Your task to perform on an android device: change the upload size in google photos Image 0: 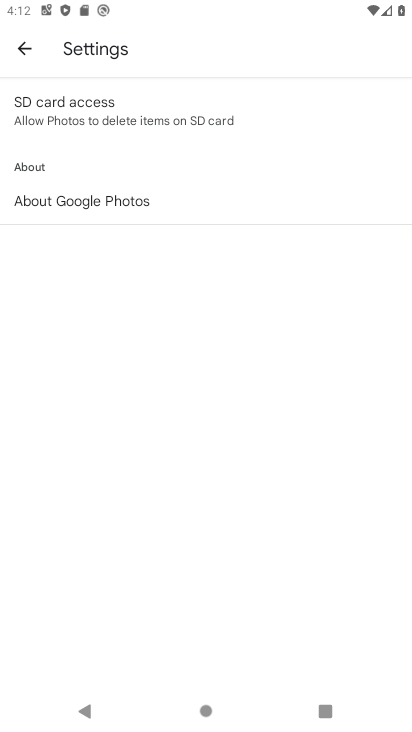
Step 0: press home button
Your task to perform on an android device: change the upload size in google photos Image 1: 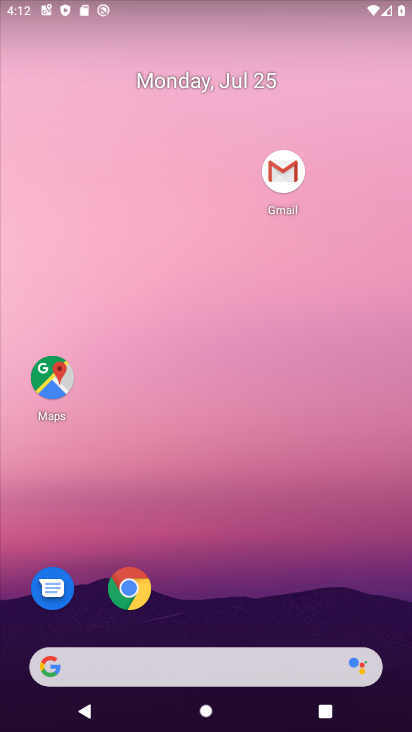
Step 1: drag from (245, 539) to (269, 154)
Your task to perform on an android device: change the upload size in google photos Image 2: 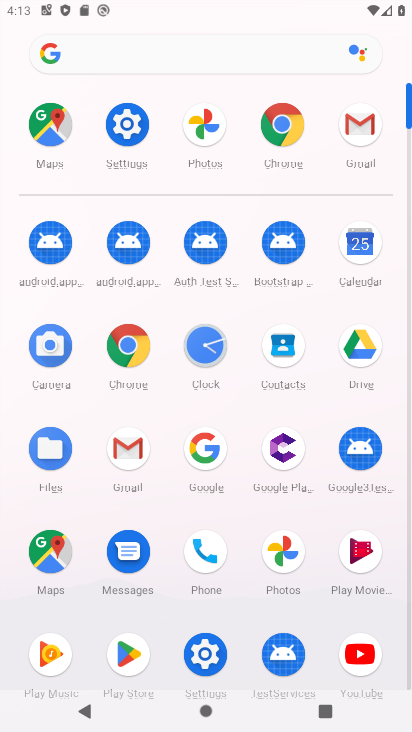
Step 2: click (223, 118)
Your task to perform on an android device: change the upload size in google photos Image 3: 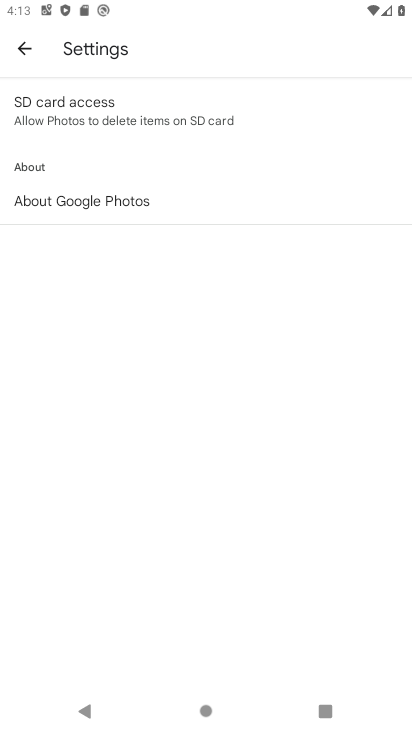
Step 3: click (29, 53)
Your task to perform on an android device: change the upload size in google photos Image 4: 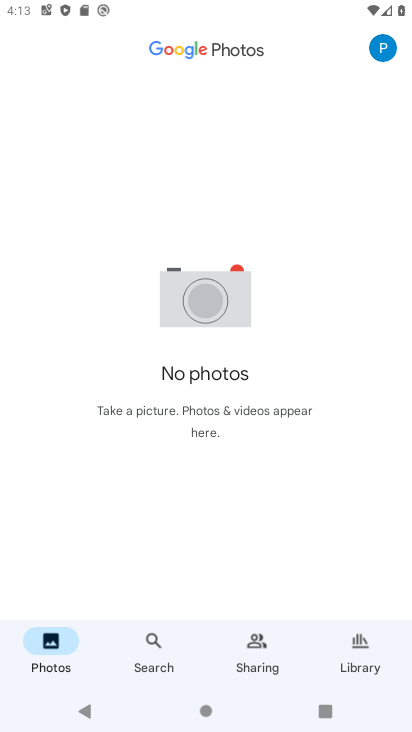
Step 4: click (392, 43)
Your task to perform on an android device: change the upload size in google photos Image 5: 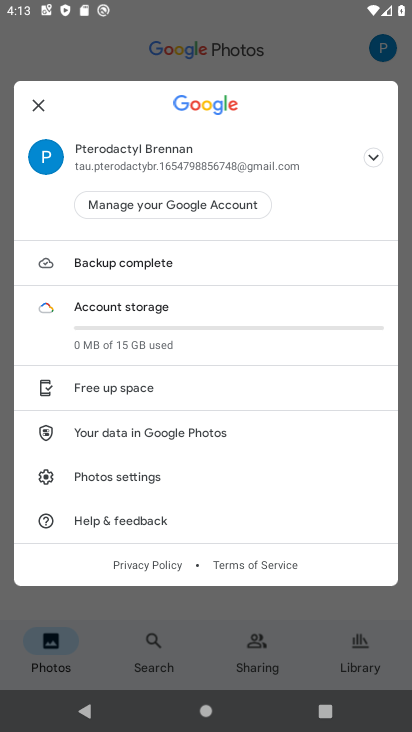
Step 5: click (104, 472)
Your task to perform on an android device: change the upload size in google photos Image 6: 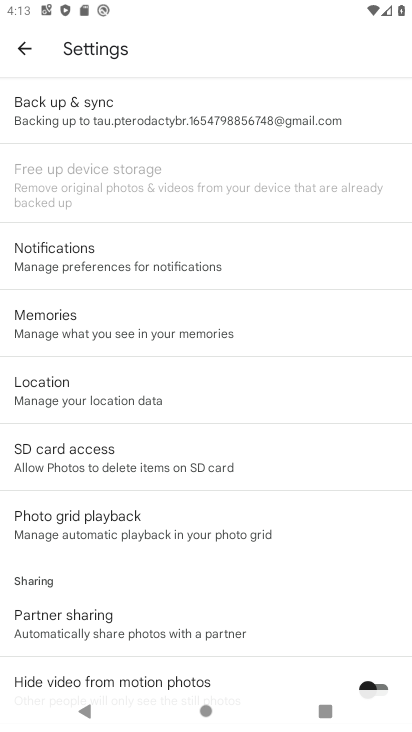
Step 6: click (240, 112)
Your task to perform on an android device: change the upload size in google photos Image 7: 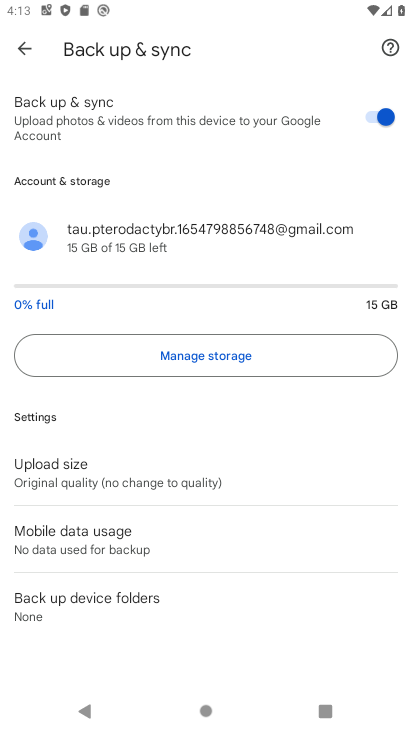
Step 7: click (142, 472)
Your task to perform on an android device: change the upload size in google photos Image 8: 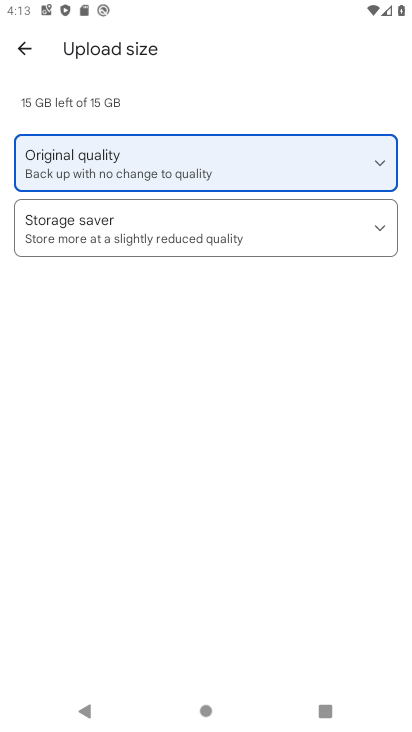
Step 8: click (149, 235)
Your task to perform on an android device: change the upload size in google photos Image 9: 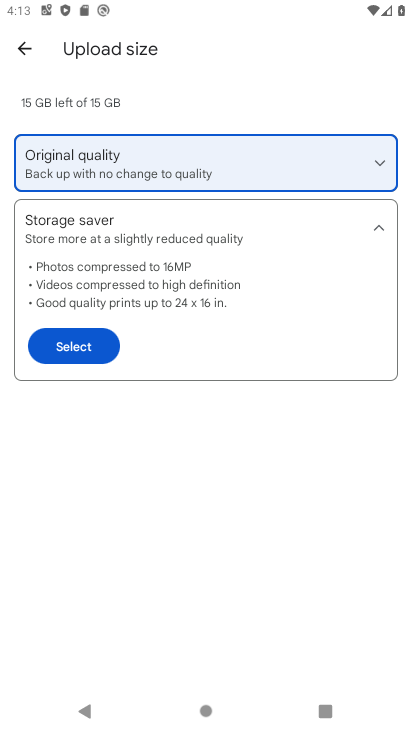
Step 9: click (90, 336)
Your task to perform on an android device: change the upload size in google photos Image 10: 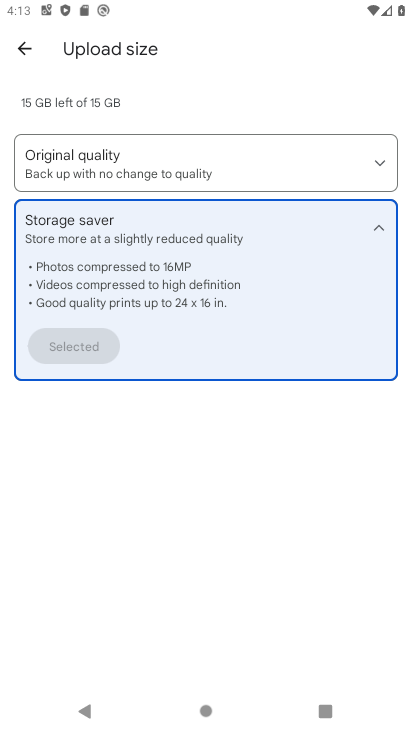
Step 10: task complete